Your task to perform on an android device: Play the last video I watched on Youtube Image 0: 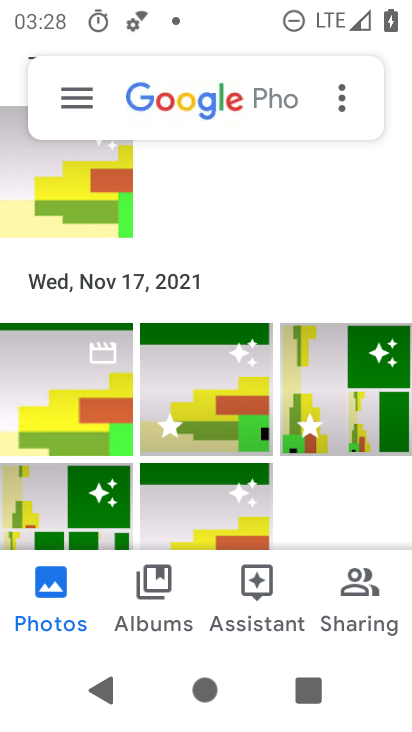
Step 0: press home button
Your task to perform on an android device: Play the last video I watched on Youtube Image 1: 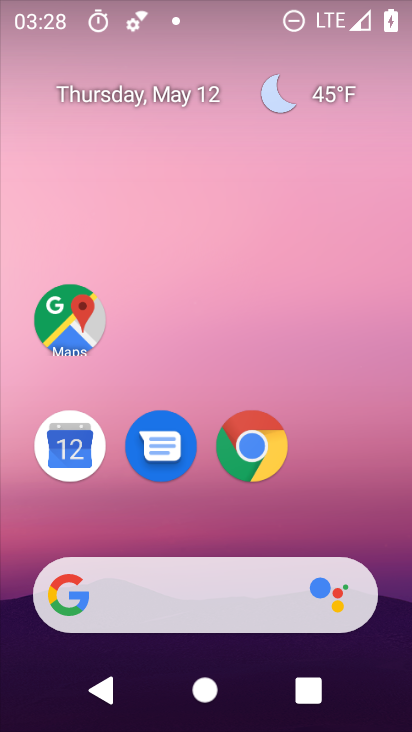
Step 1: drag from (265, 538) to (264, 177)
Your task to perform on an android device: Play the last video I watched on Youtube Image 2: 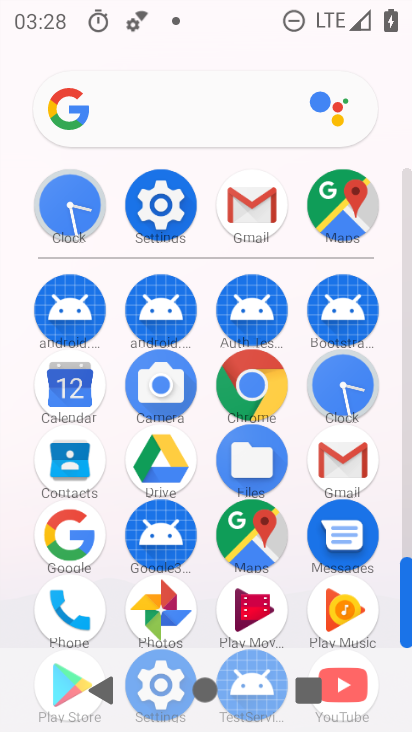
Step 2: drag from (285, 558) to (298, 259)
Your task to perform on an android device: Play the last video I watched on Youtube Image 3: 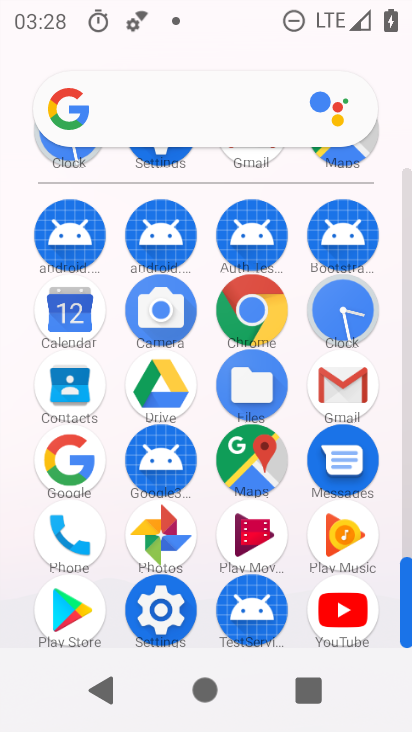
Step 3: click (333, 593)
Your task to perform on an android device: Play the last video I watched on Youtube Image 4: 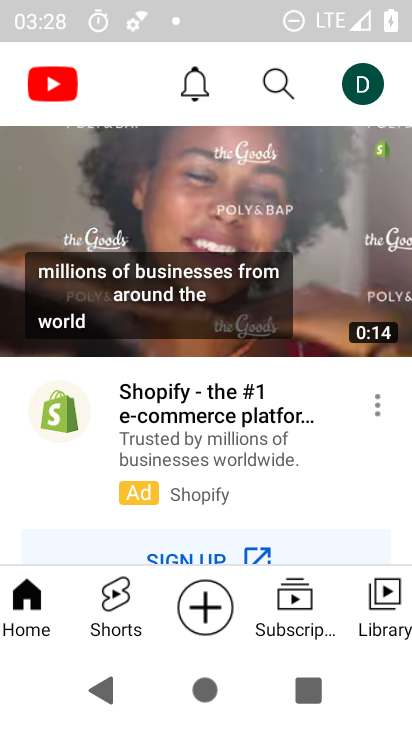
Step 4: click (366, 593)
Your task to perform on an android device: Play the last video I watched on Youtube Image 5: 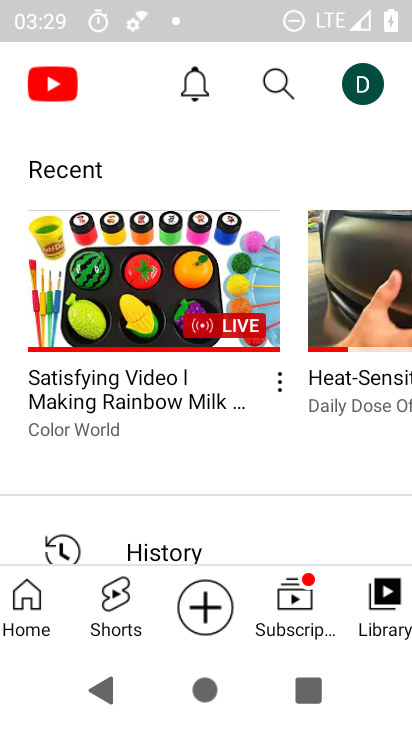
Step 5: drag from (183, 461) to (208, 256)
Your task to perform on an android device: Play the last video I watched on Youtube Image 6: 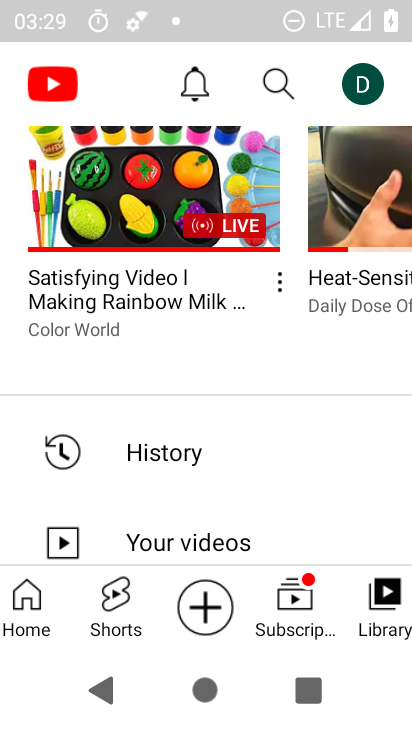
Step 6: click (185, 445)
Your task to perform on an android device: Play the last video I watched on Youtube Image 7: 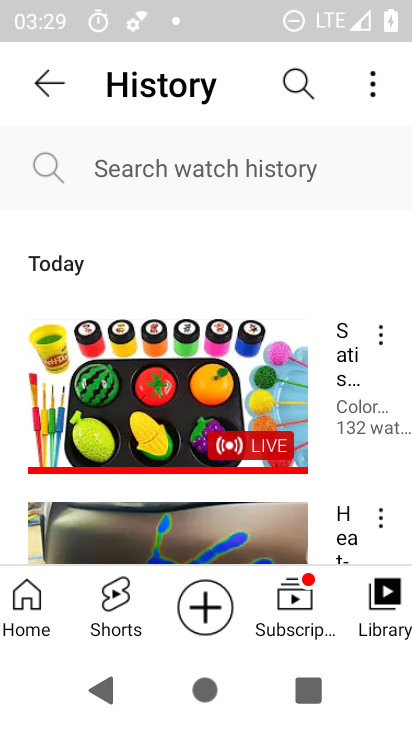
Step 7: click (160, 372)
Your task to perform on an android device: Play the last video I watched on Youtube Image 8: 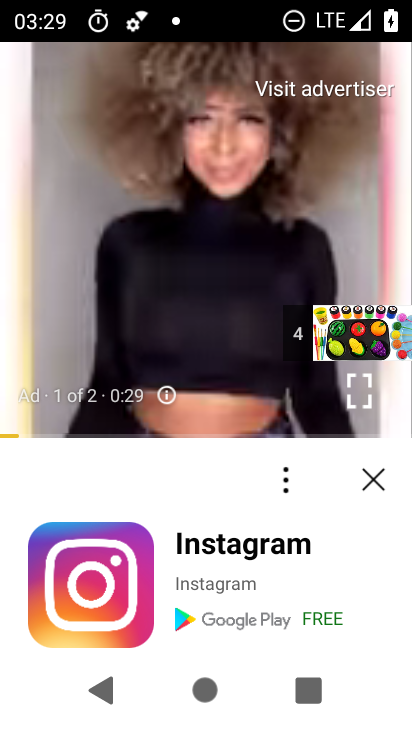
Step 8: task complete